Your task to perform on an android device: delete the emails in spam in the gmail app Image 0: 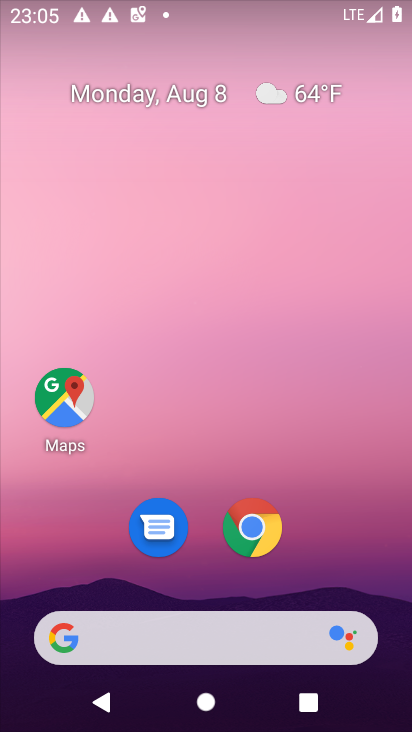
Step 0: drag from (403, 660) to (357, 124)
Your task to perform on an android device: delete the emails in spam in the gmail app Image 1: 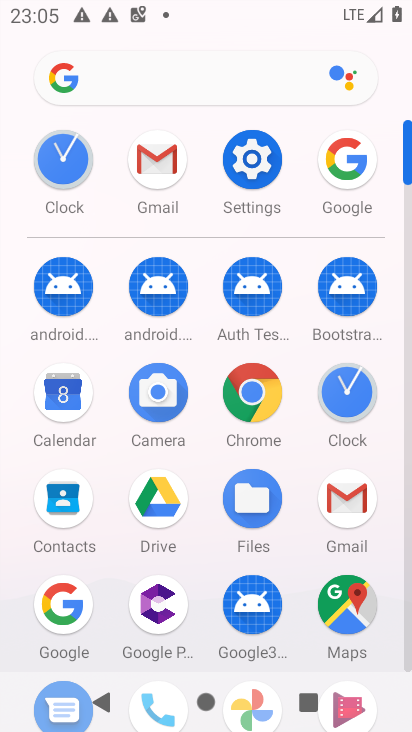
Step 1: click (354, 503)
Your task to perform on an android device: delete the emails in spam in the gmail app Image 2: 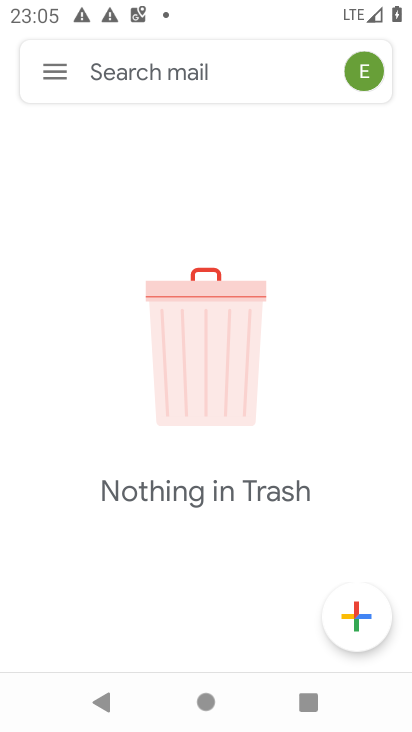
Step 2: click (58, 59)
Your task to perform on an android device: delete the emails in spam in the gmail app Image 3: 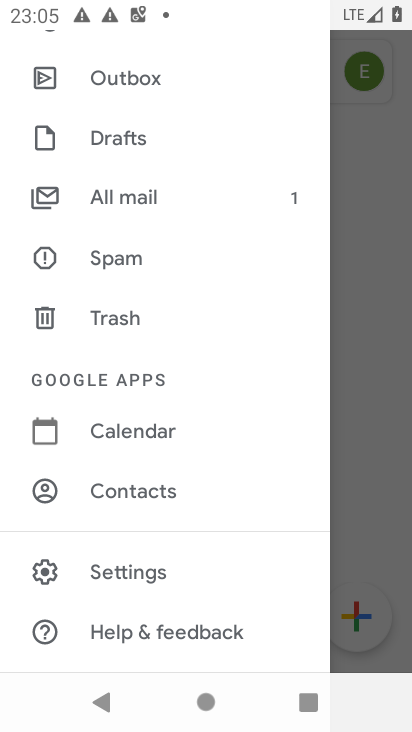
Step 3: click (109, 263)
Your task to perform on an android device: delete the emails in spam in the gmail app Image 4: 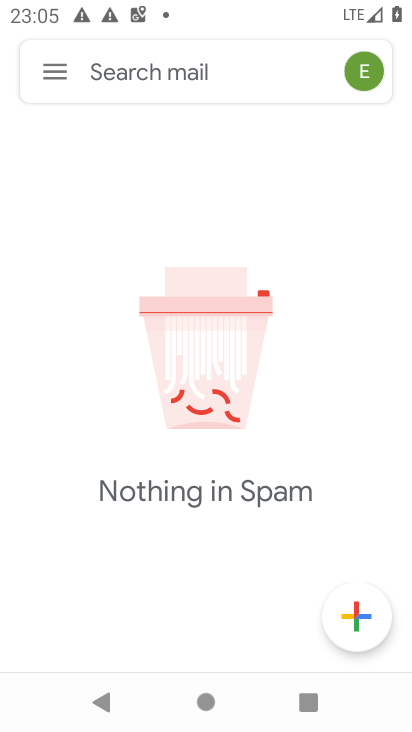
Step 4: task complete